Your task to perform on an android device: turn on priority inbox in the gmail app Image 0: 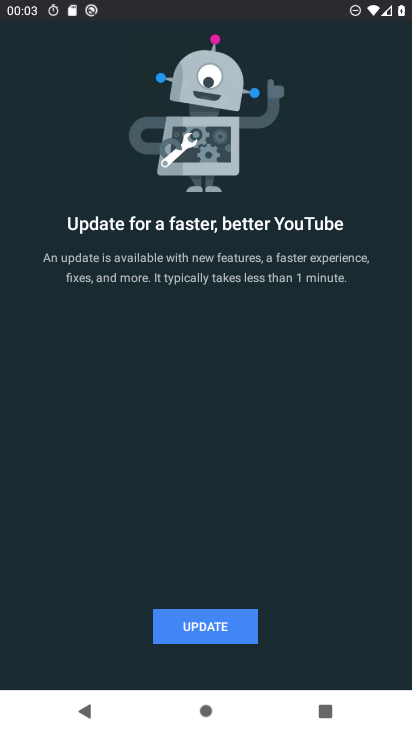
Step 0: press home button
Your task to perform on an android device: turn on priority inbox in the gmail app Image 1: 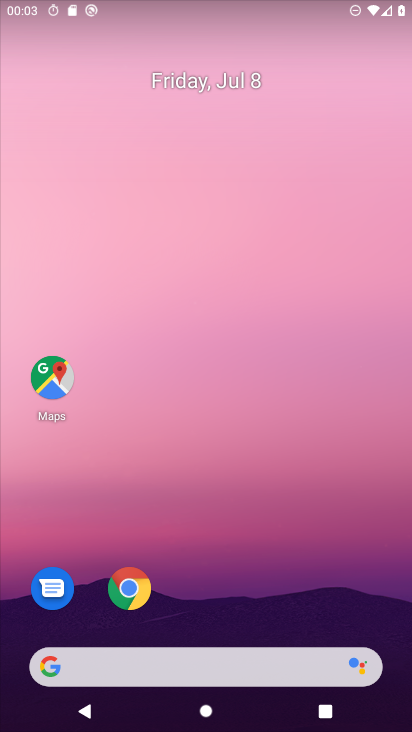
Step 1: drag from (302, 554) to (258, 51)
Your task to perform on an android device: turn on priority inbox in the gmail app Image 2: 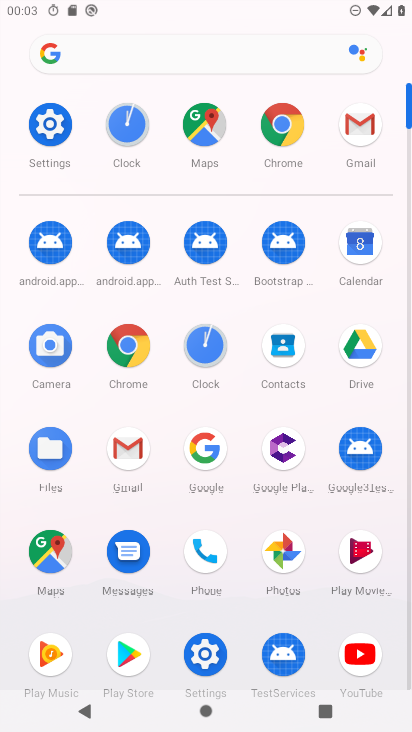
Step 2: click (357, 131)
Your task to perform on an android device: turn on priority inbox in the gmail app Image 3: 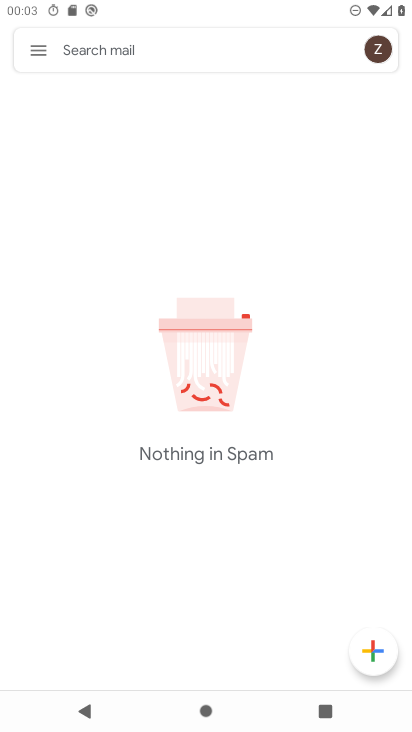
Step 3: click (33, 49)
Your task to perform on an android device: turn on priority inbox in the gmail app Image 4: 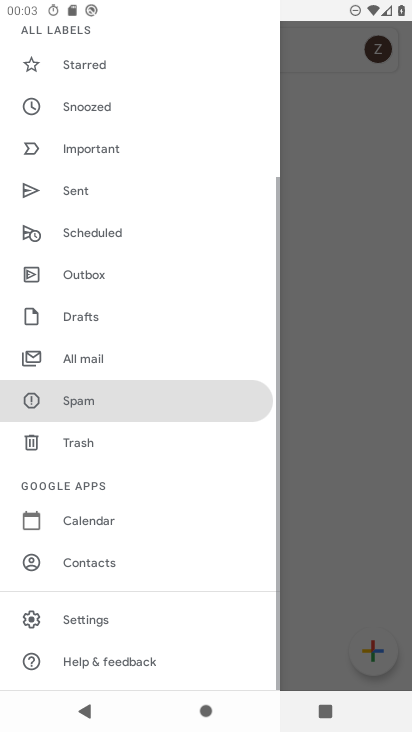
Step 4: click (98, 614)
Your task to perform on an android device: turn on priority inbox in the gmail app Image 5: 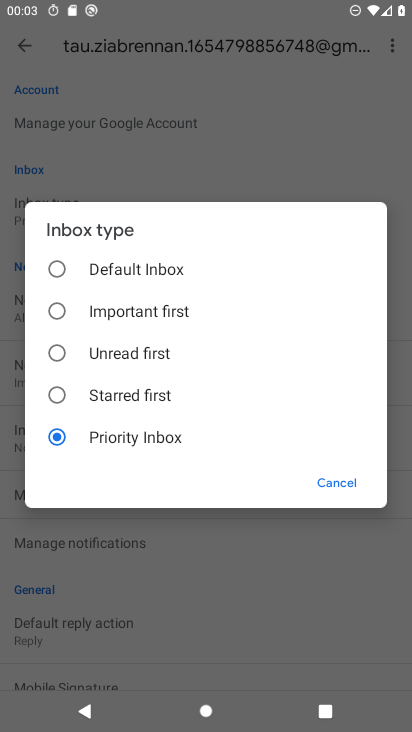
Step 5: task complete